Your task to perform on an android device: turn notification dots on Image 0: 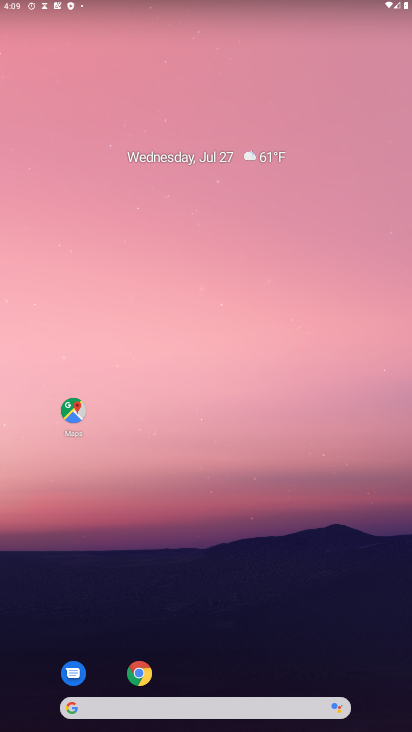
Step 0: drag from (28, 566) to (145, 117)
Your task to perform on an android device: turn notification dots on Image 1: 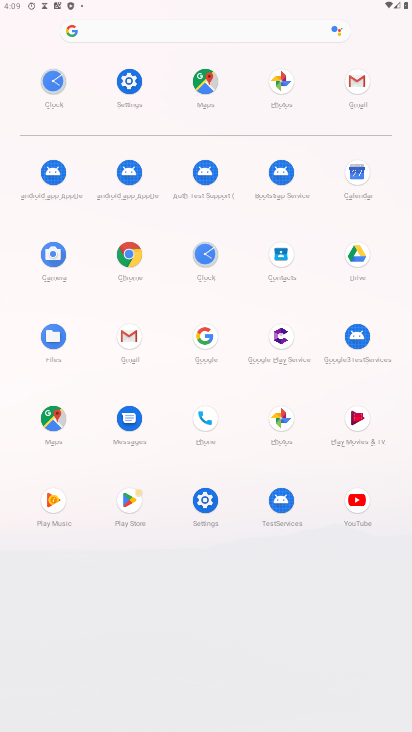
Step 1: click (220, 506)
Your task to perform on an android device: turn notification dots on Image 2: 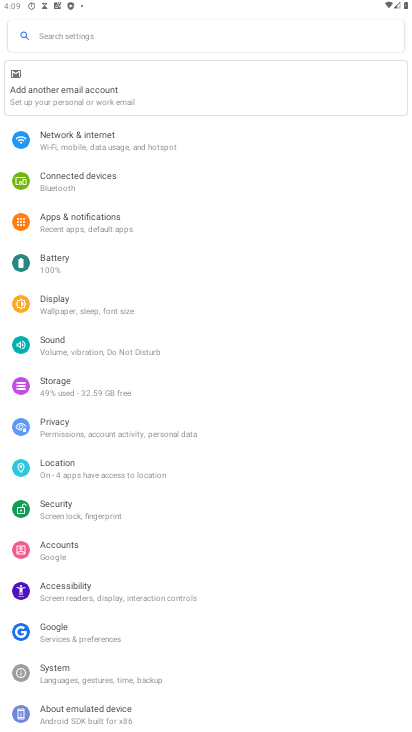
Step 2: click (81, 233)
Your task to perform on an android device: turn notification dots on Image 3: 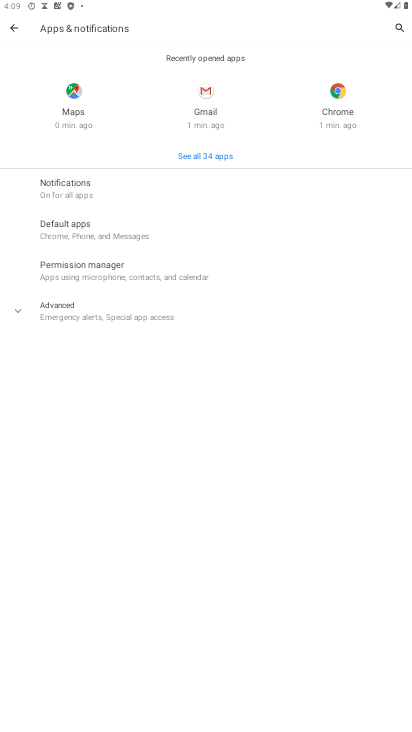
Step 3: click (59, 181)
Your task to perform on an android device: turn notification dots on Image 4: 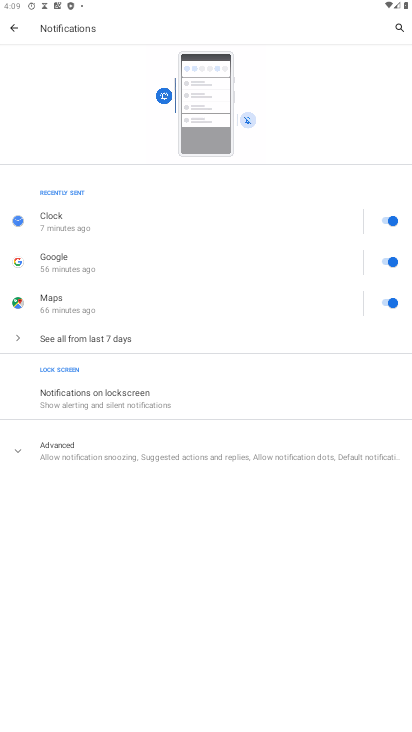
Step 4: click (58, 443)
Your task to perform on an android device: turn notification dots on Image 5: 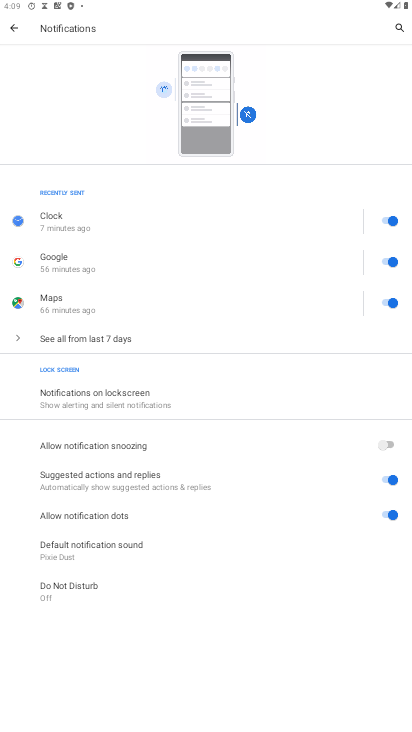
Step 5: task complete